Your task to perform on an android device: Is it going to rain this weekend? Image 0: 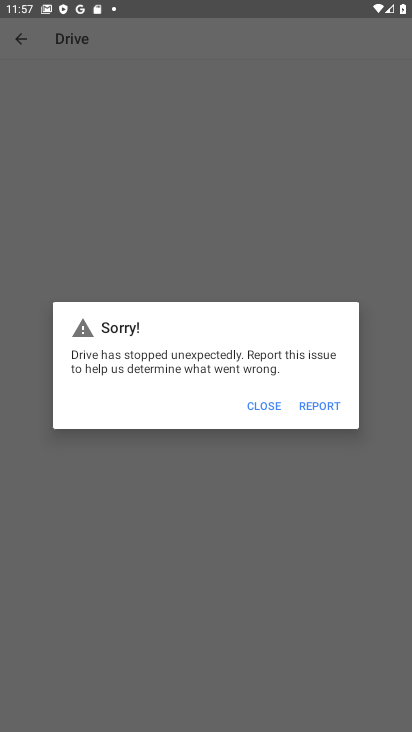
Step 0: press home button
Your task to perform on an android device: Is it going to rain this weekend? Image 1: 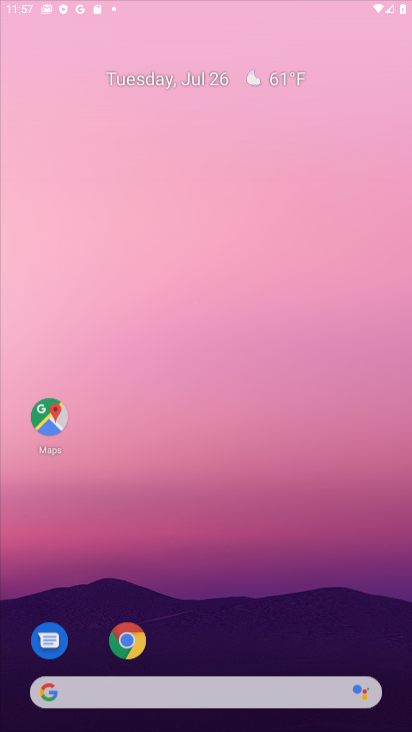
Step 1: drag from (247, 546) to (304, 98)
Your task to perform on an android device: Is it going to rain this weekend? Image 2: 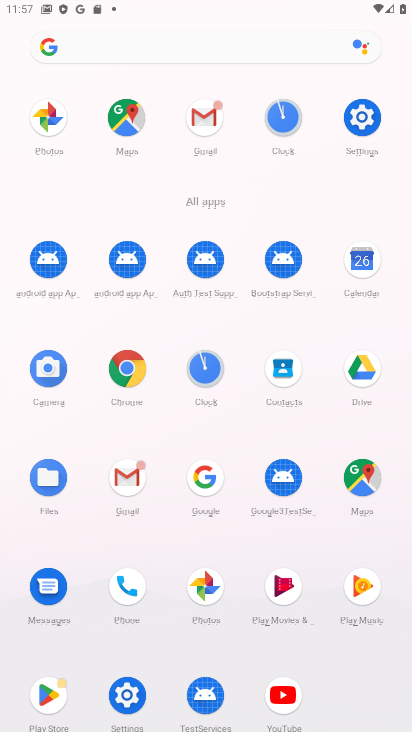
Step 2: click (167, 52)
Your task to perform on an android device: Is it going to rain this weekend? Image 3: 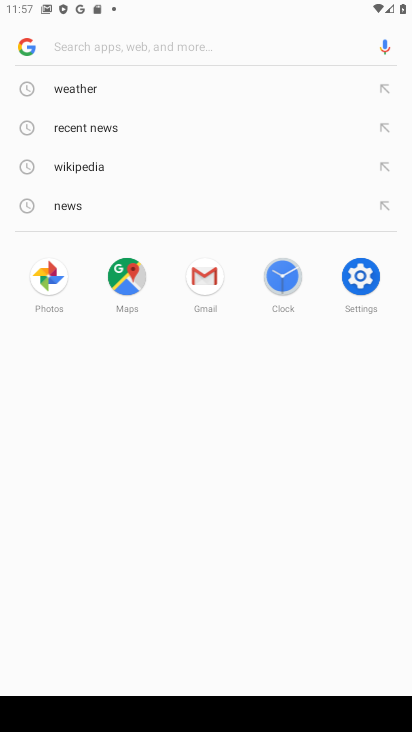
Step 3: type "Is it going to rain this weekend?"
Your task to perform on an android device: Is it going to rain this weekend? Image 4: 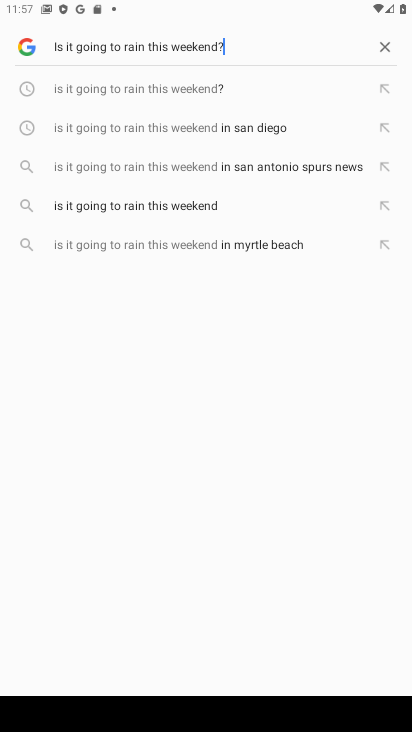
Step 4: type ""
Your task to perform on an android device: Is it going to rain this weekend? Image 5: 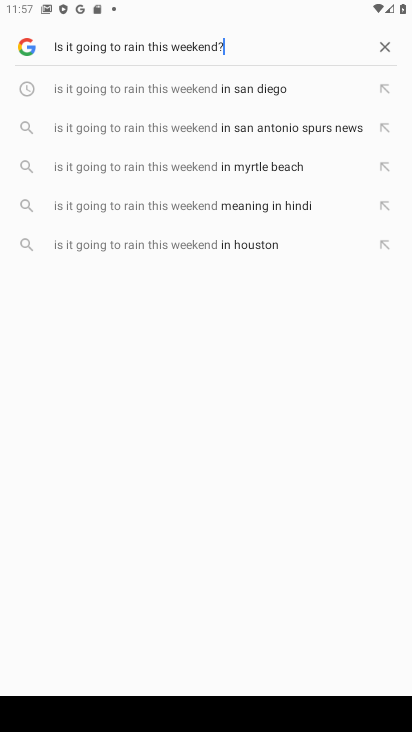
Step 5: click (96, 85)
Your task to perform on an android device: Is it going to rain this weekend? Image 6: 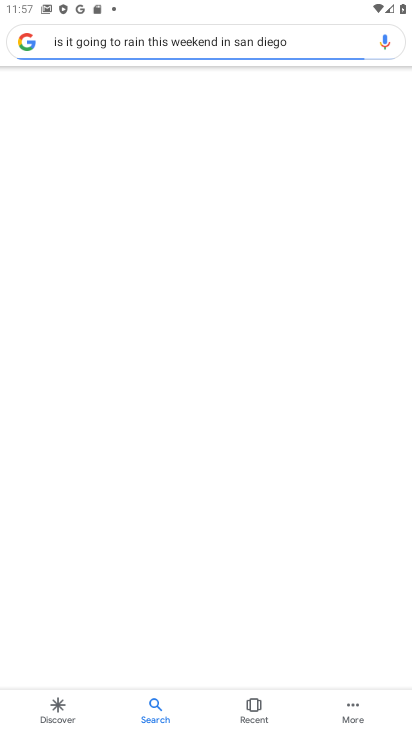
Step 6: task complete